Your task to perform on an android device: change text size in settings app Image 0: 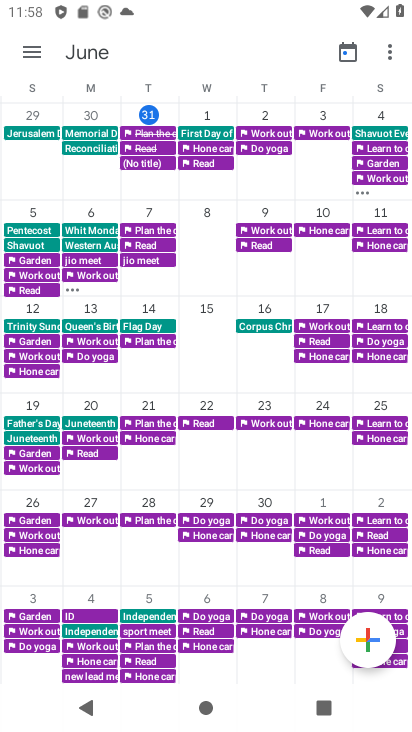
Step 0: press home button
Your task to perform on an android device: change text size in settings app Image 1: 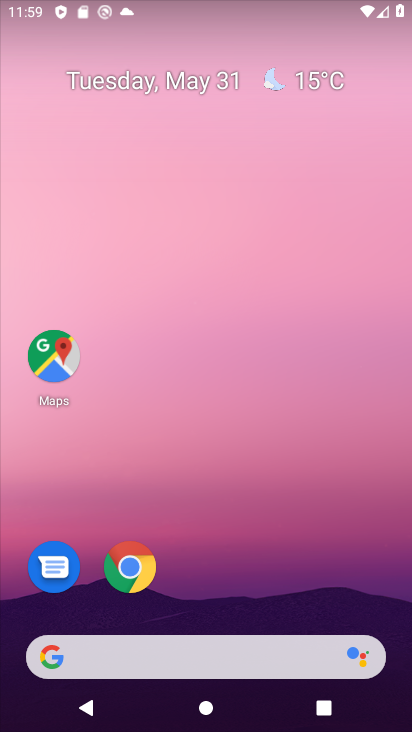
Step 1: drag from (206, 647) to (147, 5)
Your task to perform on an android device: change text size in settings app Image 2: 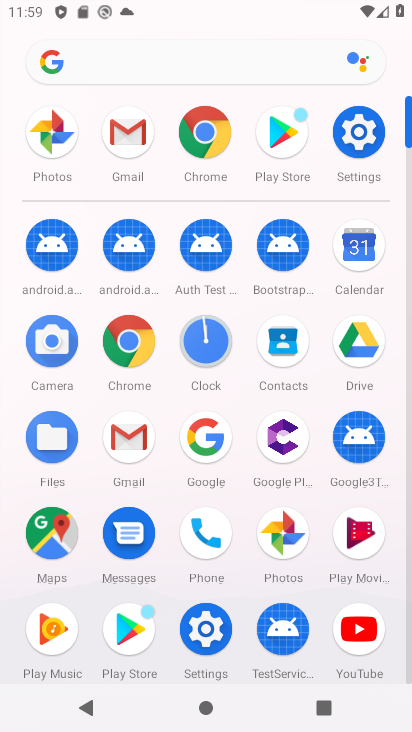
Step 2: click (360, 131)
Your task to perform on an android device: change text size in settings app Image 3: 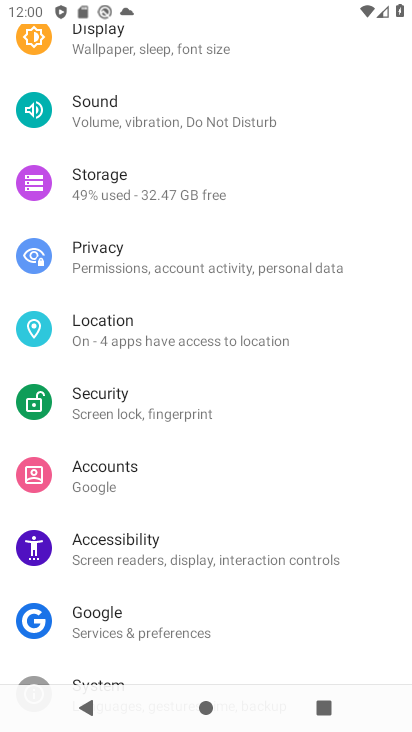
Step 3: click (120, 58)
Your task to perform on an android device: change text size in settings app Image 4: 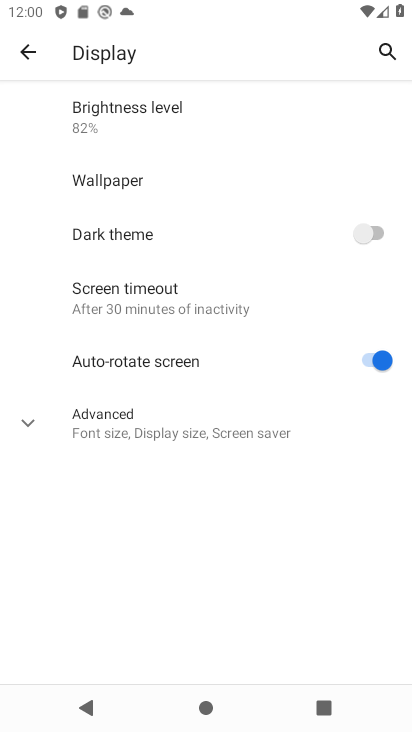
Step 4: click (126, 427)
Your task to perform on an android device: change text size in settings app Image 5: 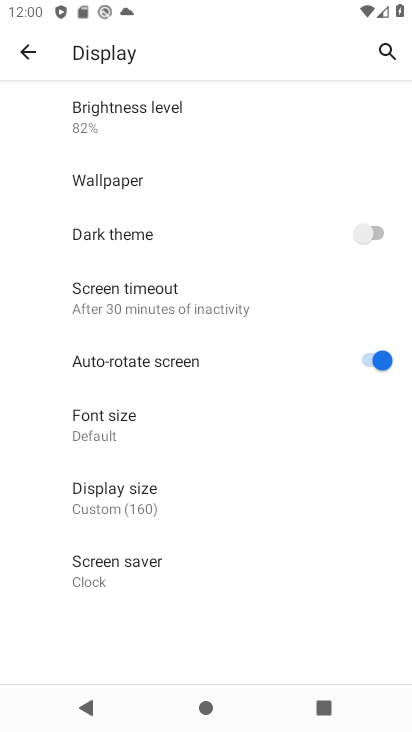
Step 5: click (113, 409)
Your task to perform on an android device: change text size in settings app Image 6: 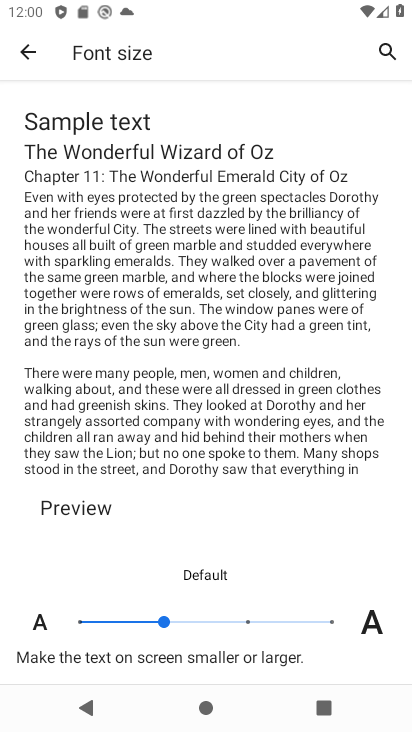
Step 6: click (82, 612)
Your task to perform on an android device: change text size in settings app Image 7: 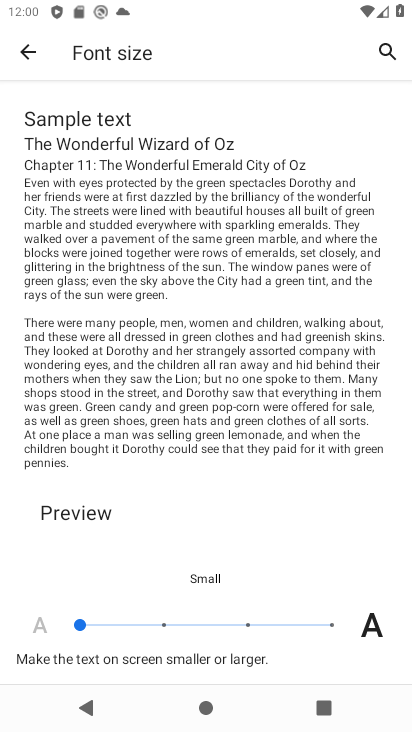
Step 7: task complete